Your task to perform on an android device: Open Amazon Image 0: 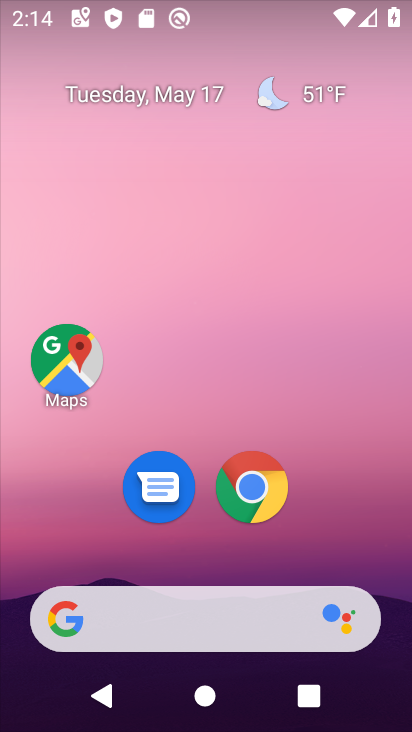
Step 0: click (255, 489)
Your task to perform on an android device: Open Amazon Image 1: 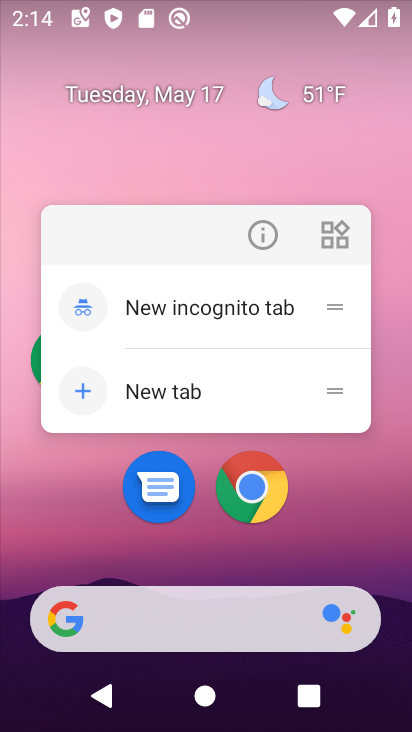
Step 1: click (255, 489)
Your task to perform on an android device: Open Amazon Image 2: 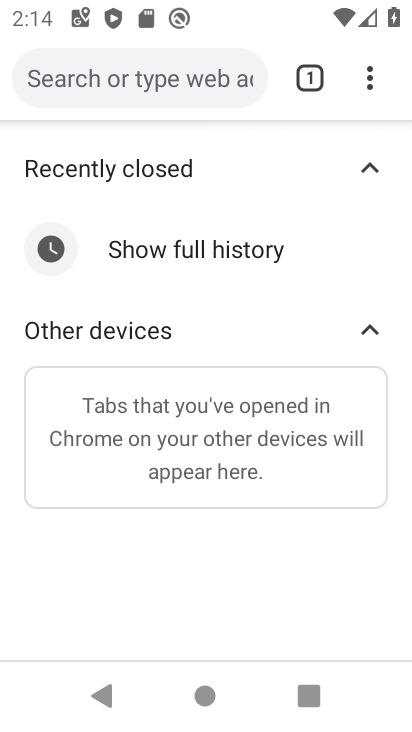
Step 2: drag from (372, 76) to (314, 162)
Your task to perform on an android device: Open Amazon Image 3: 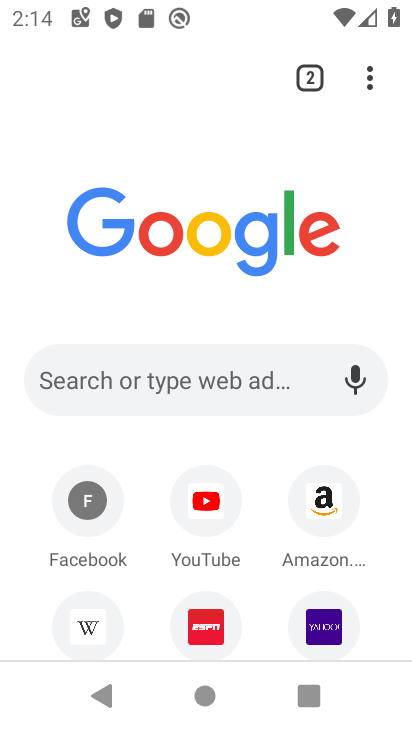
Step 3: click (303, 534)
Your task to perform on an android device: Open Amazon Image 4: 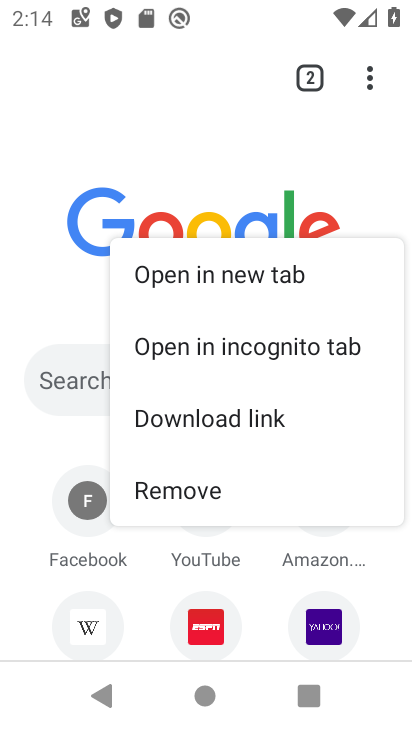
Step 4: click (317, 545)
Your task to perform on an android device: Open Amazon Image 5: 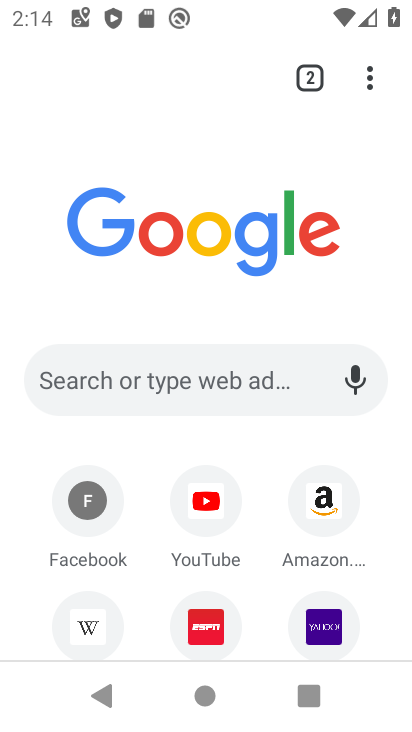
Step 5: click (329, 511)
Your task to perform on an android device: Open Amazon Image 6: 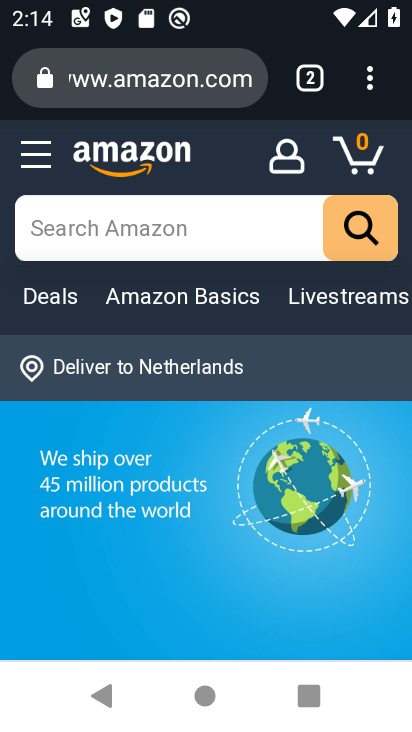
Step 6: task complete